Your task to perform on an android device: find photos in the google photos app Image 0: 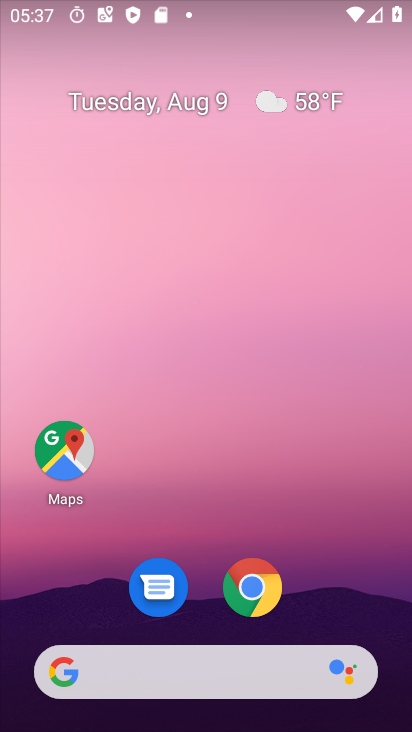
Step 0: drag from (213, 639) to (210, 118)
Your task to perform on an android device: find photos in the google photos app Image 1: 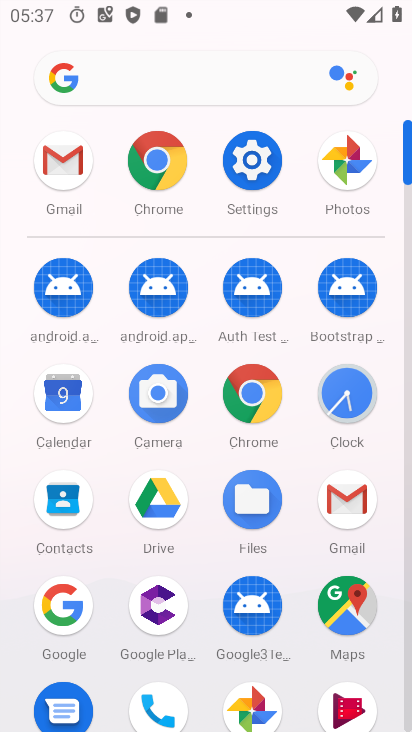
Step 1: click (264, 691)
Your task to perform on an android device: find photos in the google photos app Image 2: 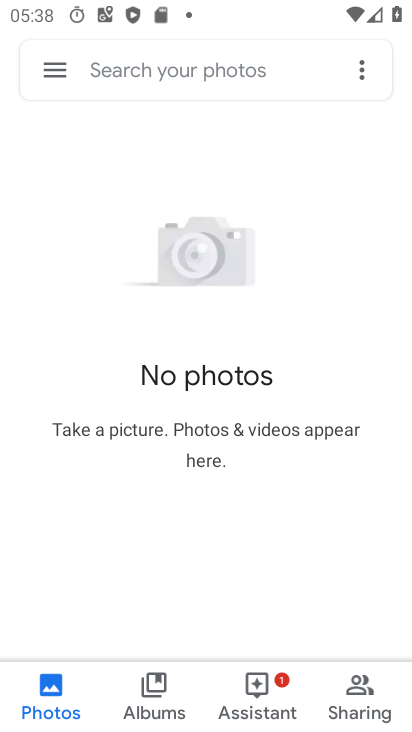
Step 2: task complete